Your task to perform on an android device: check out phone information Image 0: 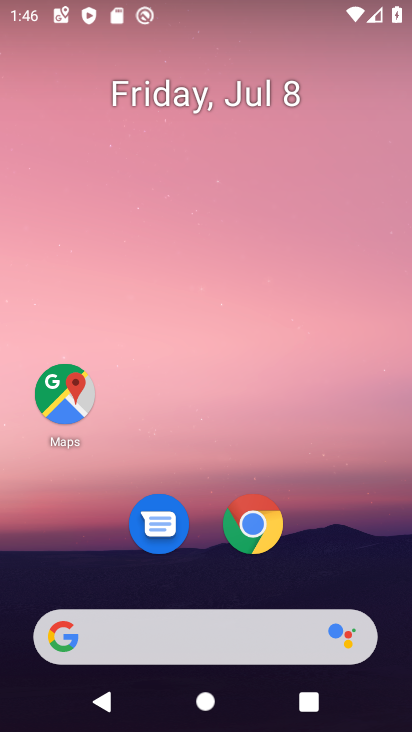
Step 0: press home button
Your task to perform on an android device: check out phone information Image 1: 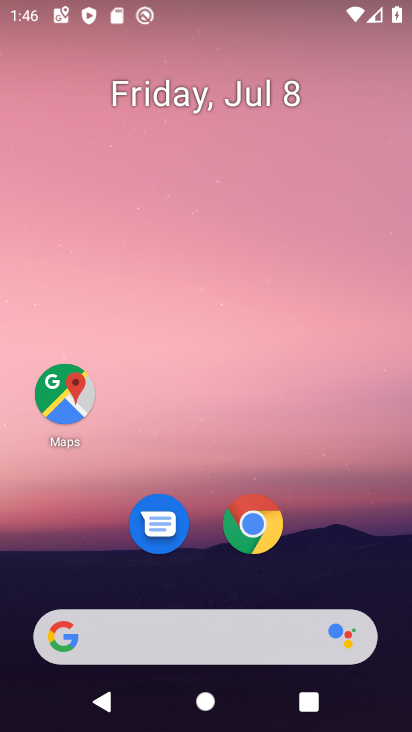
Step 1: drag from (294, 509) to (258, 221)
Your task to perform on an android device: check out phone information Image 2: 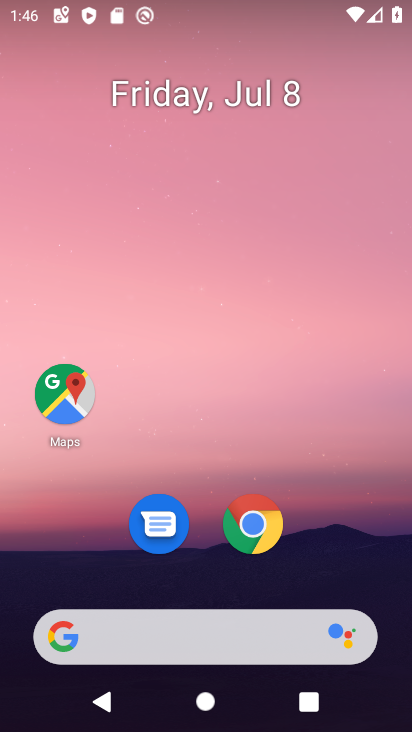
Step 2: drag from (253, 663) to (146, 193)
Your task to perform on an android device: check out phone information Image 3: 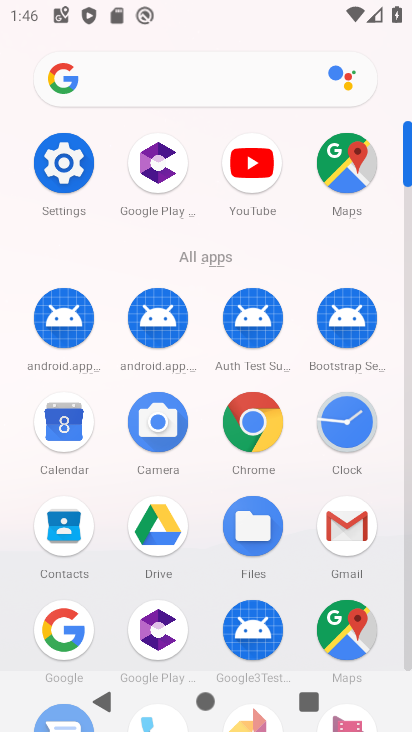
Step 3: drag from (55, 173) to (352, 528)
Your task to perform on an android device: check out phone information Image 4: 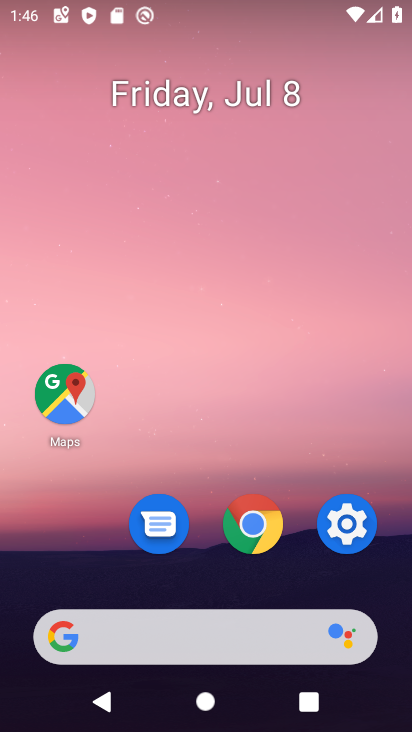
Step 4: click (355, 536)
Your task to perform on an android device: check out phone information Image 5: 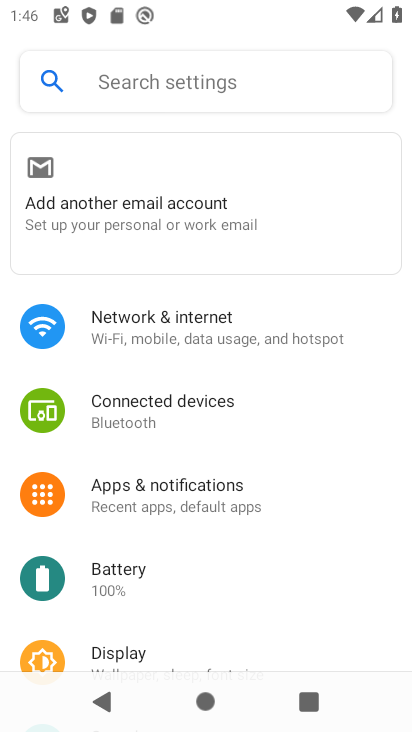
Step 5: click (173, 77)
Your task to perform on an android device: check out phone information Image 6: 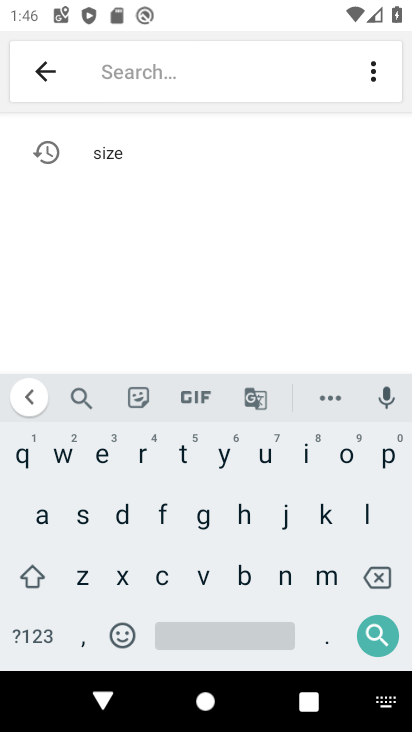
Step 6: click (39, 511)
Your task to perform on an android device: check out phone information Image 7: 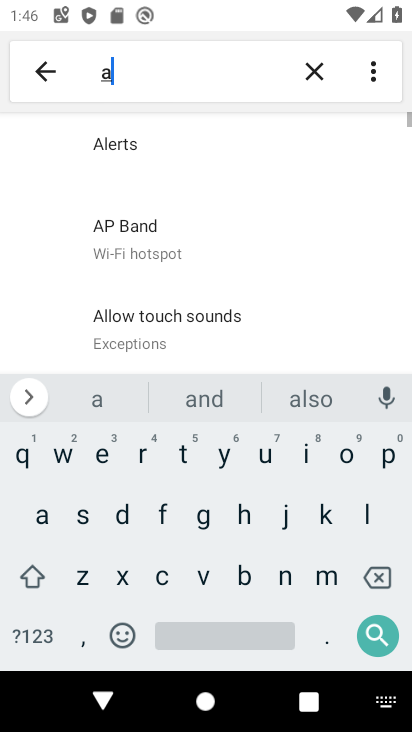
Step 7: click (250, 574)
Your task to perform on an android device: check out phone information Image 8: 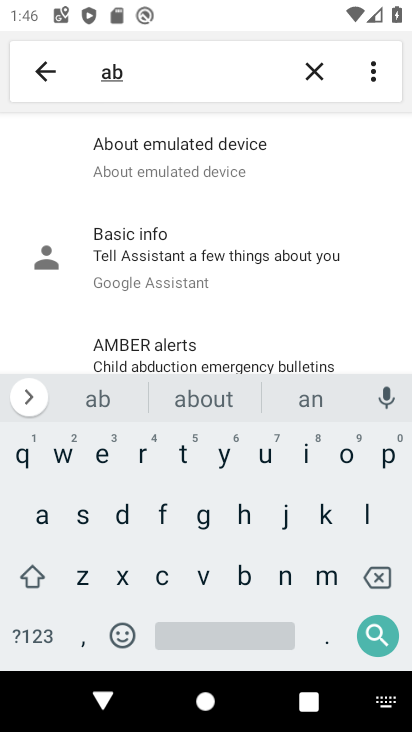
Step 8: click (169, 160)
Your task to perform on an android device: check out phone information Image 9: 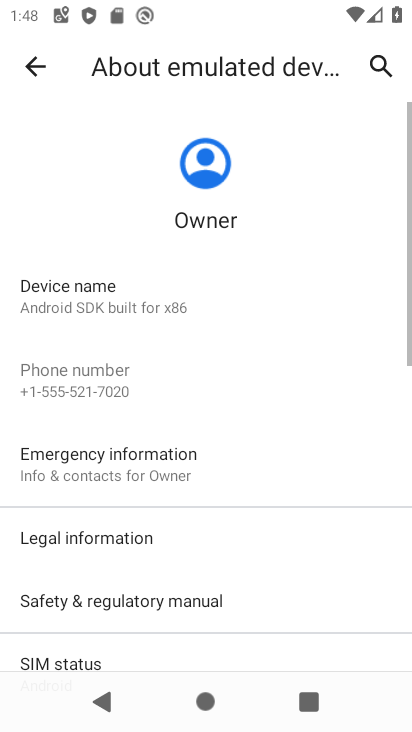
Step 9: task complete